Your task to perform on an android device: turn on showing notifications on the lock screen Image 0: 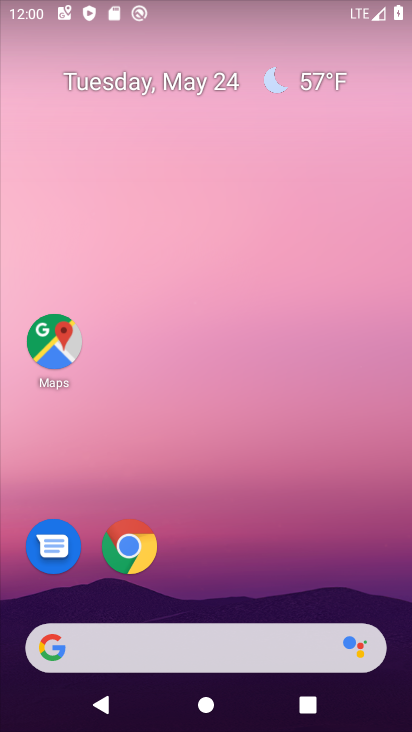
Step 0: drag from (204, 559) to (220, 125)
Your task to perform on an android device: turn on showing notifications on the lock screen Image 1: 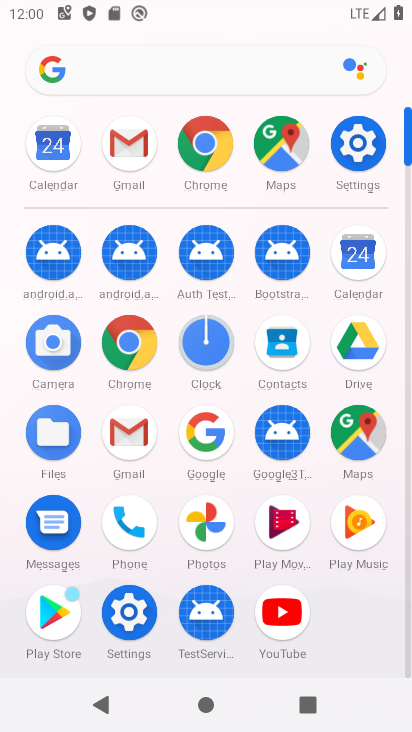
Step 1: click (355, 143)
Your task to perform on an android device: turn on showing notifications on the lock screen Image 2: 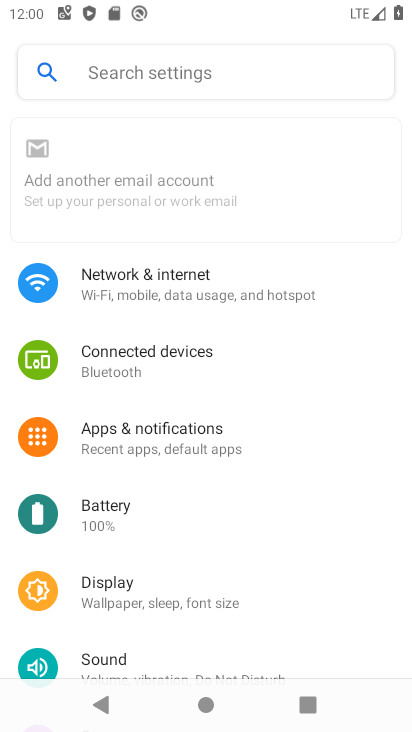
Step 2: drag from (190, 519) to (293, 44)
Your task to perform on an android device: turn on showing notifications on the lock screen Image 3: 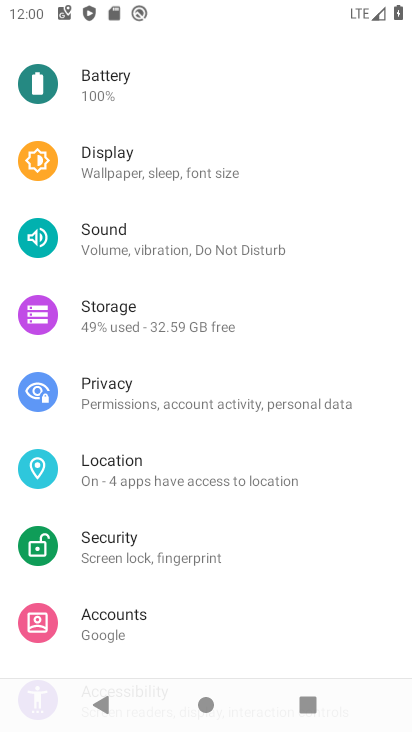
Step 3: drag from (158, 572) to (203, 157)
Your task to perform on an android device: turn on showing notifications on the lock screen Image 4: 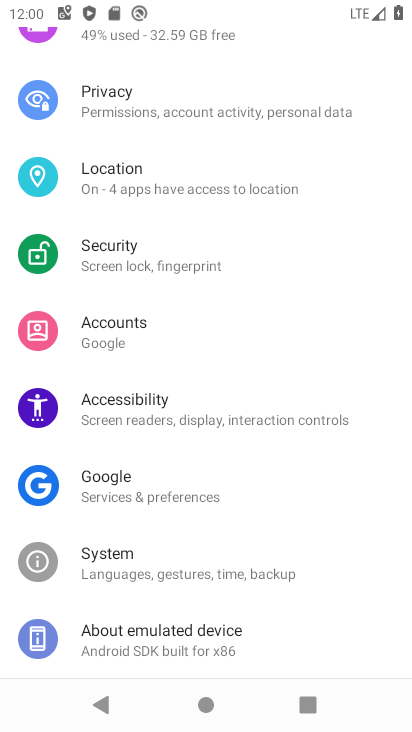
Step 4: drag from (182, 564) to (321, 179)
Your task to perform on an android device: turn on showing notifications on the lock screen Image 5: 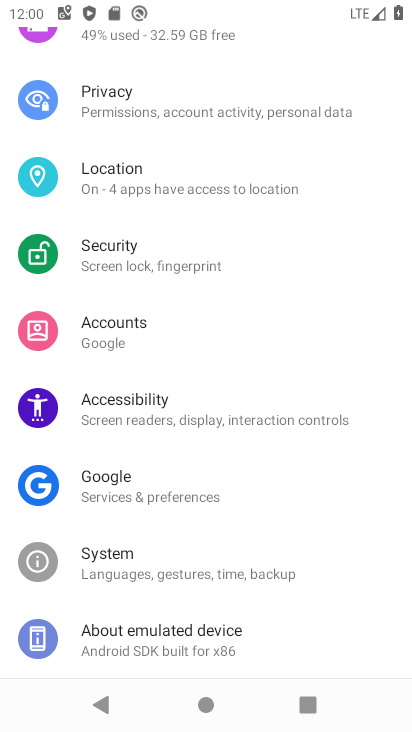
Step 5: click (81, 166)
Your task to perform on an android device: turn on showing notifications on the lock screen Image 6: 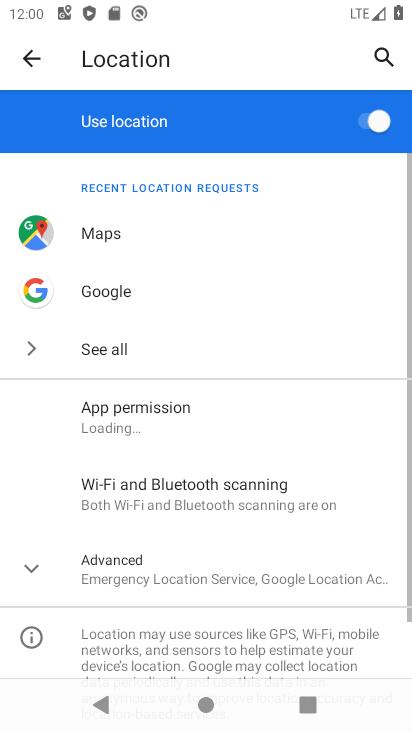
Step 6: click (39, 59)
Your task to perform on an android device: turn on showing notifications on the lock screen Image 7: 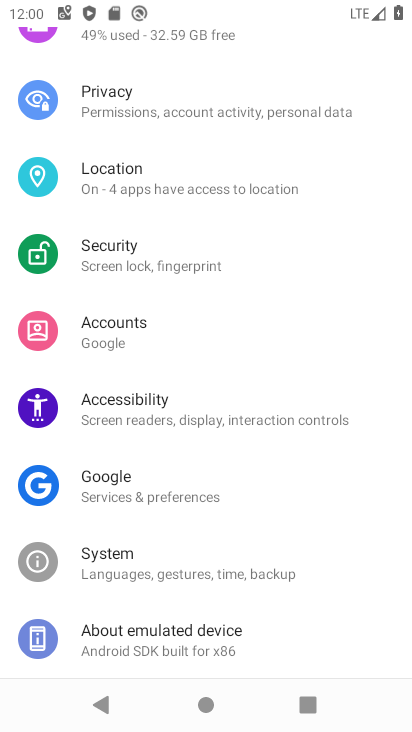
Step 7: drag from (41, 62) to (124, 721)
Your task to perform on an android device: turn on showing notifications on the lock screen Image 8: 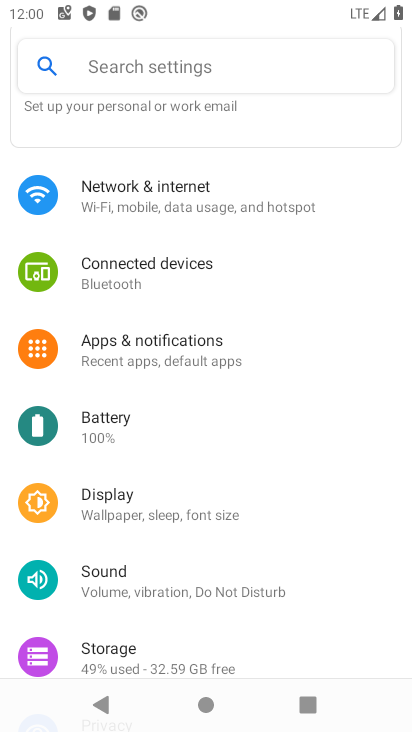
Step 8: click (164, 360)
Your task to perform on an android device: turn on showing notifications on the lock screen Image 9: 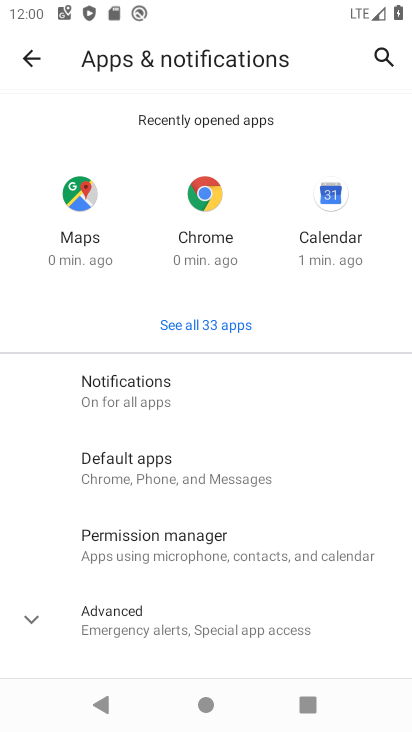
Step 9: click (211, 411)
Your task to perform on an android device: turn on showing notifications on the lock screen Image 10: 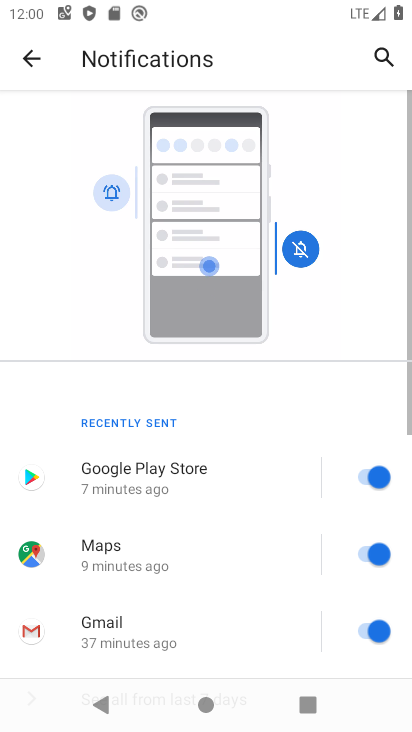
Step 10: drag from (231, 585) to (358, 318)
Your task to perform on an android device: turn on showing notifications on the lock screen Image 11: 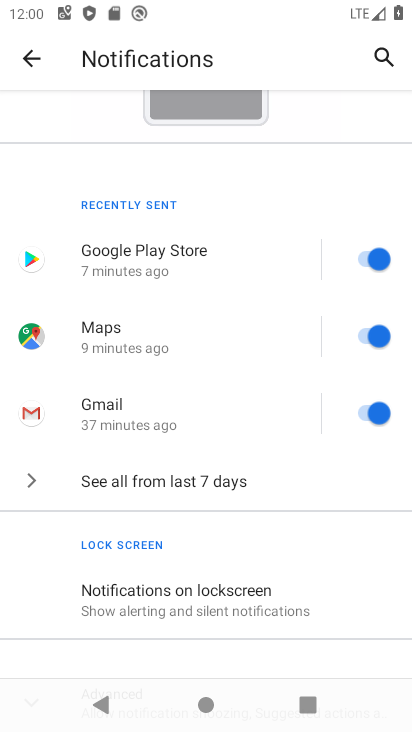
Step 11: drag from (201, 545) to (268, 300)
Your task to perform on an android device: turn on showing notifications on the lock screen Image 12: 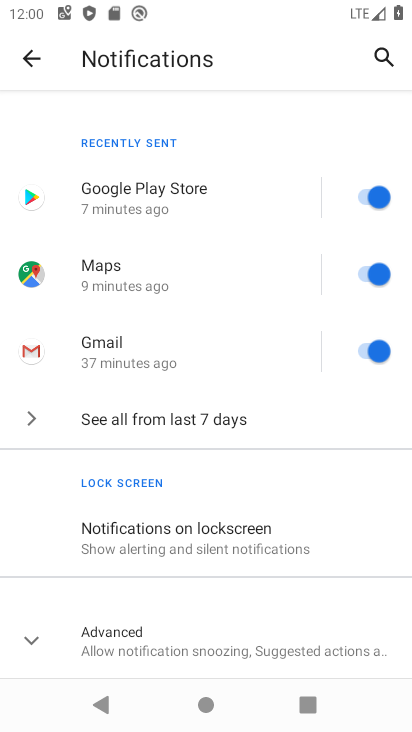
Step 12: click (136, 631)
Your task to perform on an android device: turn on showing notifications on the lock screen Image 13: 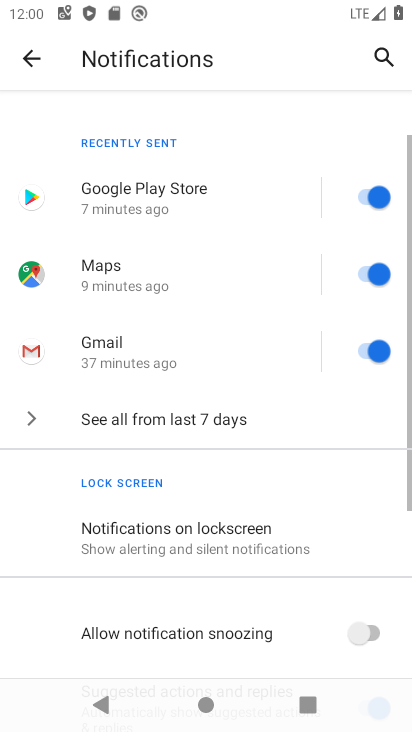
Step 13: drag from (155, 589) to (314, 124)
Your task to perform on an android device: turn on showing notifications on the lock screen Image 14: 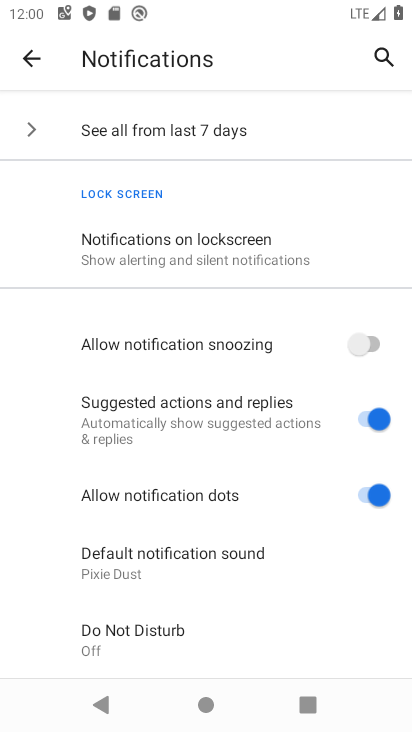
Step 14: click (215, 260)
Your task to perform on an android device: turn on showing notifications on the lock screen Image 15: 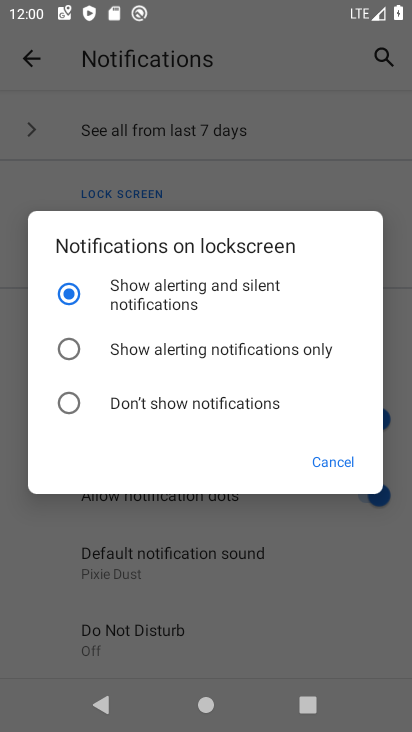
Step 15: click (83, 338)
Your task to perform on an android device: turn on showing notifications on the lock screen Image 16: 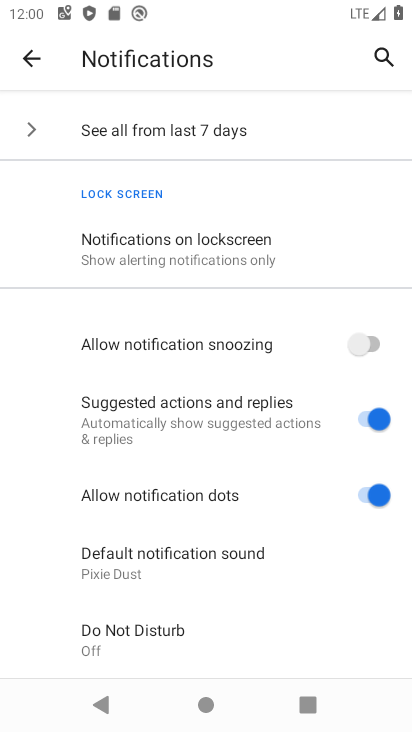
Step 16: task complete